Your task to perform on an android device: Open calendar and show me the second week of next month Image 0: 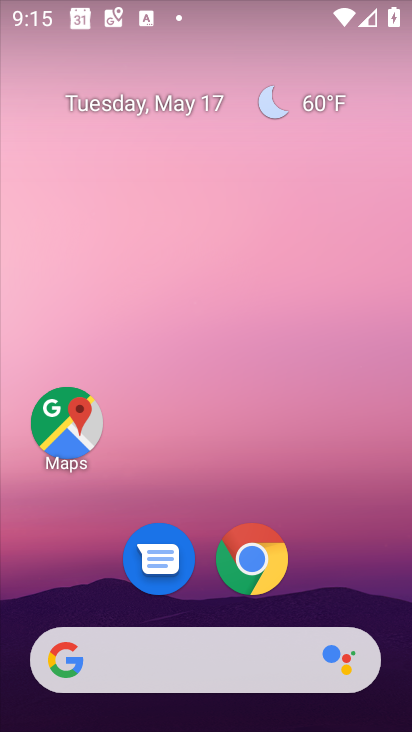
Step 0: drag from (275, 485) to (292, 213)
Your task to perform on an android device: Open calendar and show me the second week of next month Image 1: 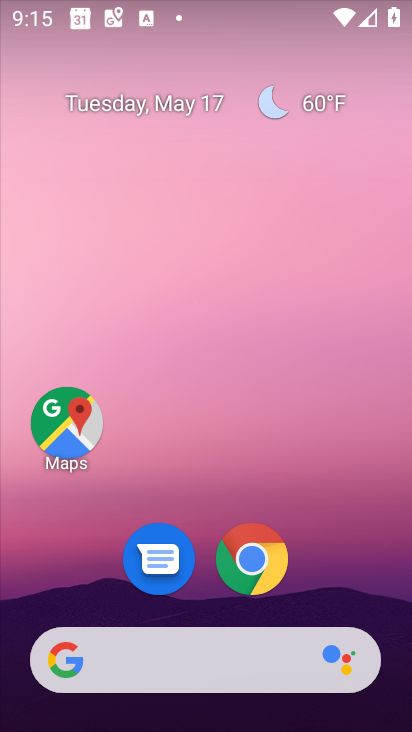
Step 1: drag from (199, 585) to (353, 77)
Your task to perform on an android device: Open calendar and show me the second week of next month Image 2: 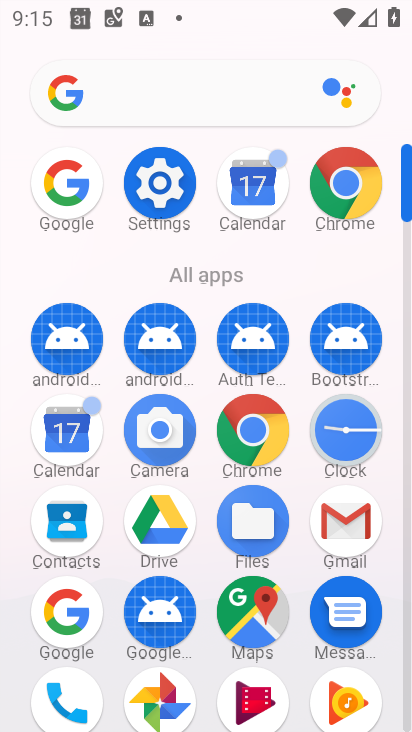
Step 2: click (53, 446)
Your task to perform on an android device: Open calendar and show me the second week of next month Image 3: 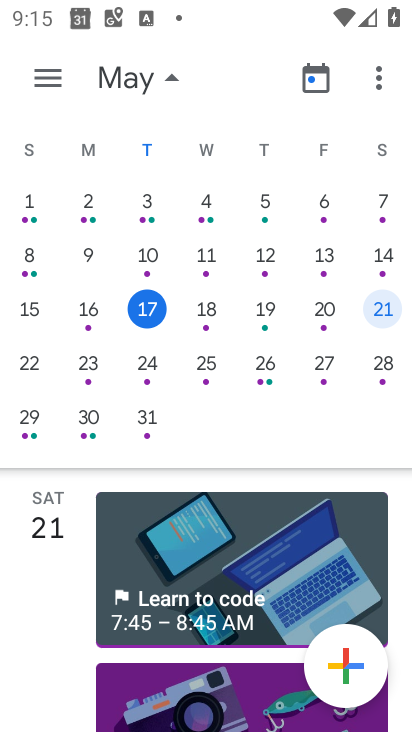
Step 3: drag from (353, 343) to (16, 280)
Your task to perform on an android device: Open calendar and show me the second week of next month Image 4: 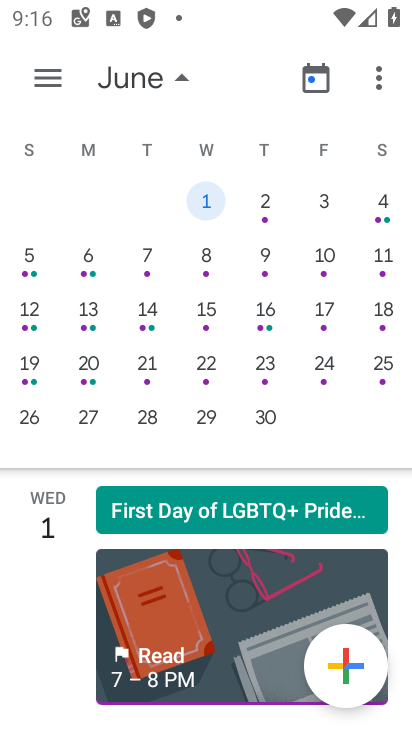
Step 4: drag from (38, 347) to (8, 308)
Your task to perform on an android device: Open calendar and show me the second week of next month Image 5: 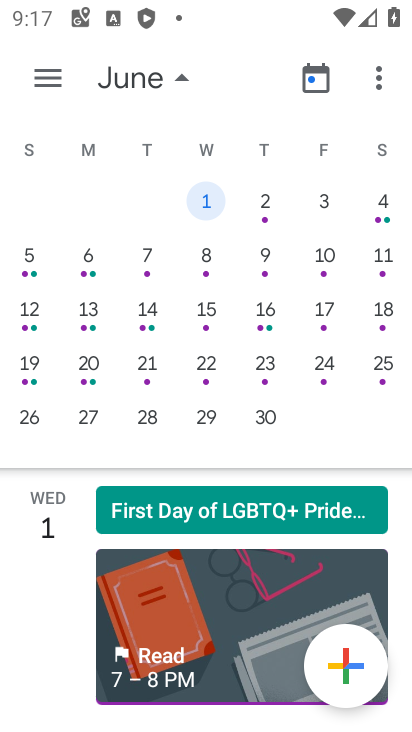
Step 5: click (32, 308)
Your task to perform on an android device: Open calendar and show me the second week of next month Image 6: 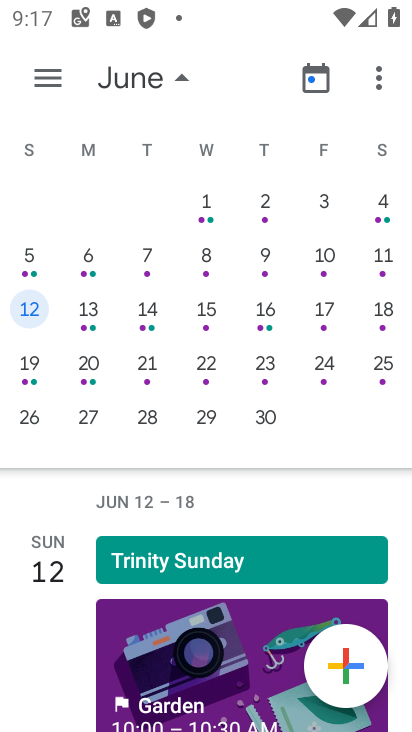
Step 6: task complete